Your task to perform on an android device: Go to network settings Image 0: 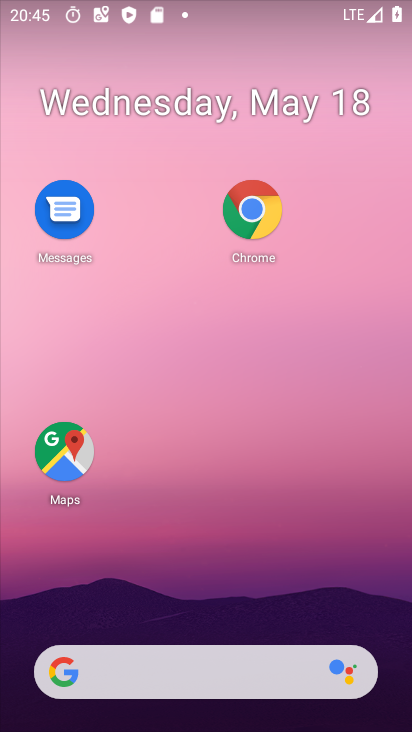
Step 0: drag from (238, 10) to (243, 444)
Your task to perform on an android device: Go to network settings Image 1: 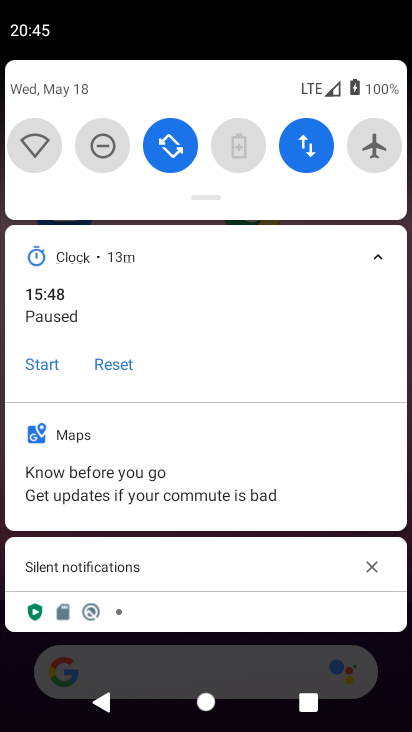
Step 1: click (308, 148)
Your task to perform on an android device: Go to network settings Image 2: 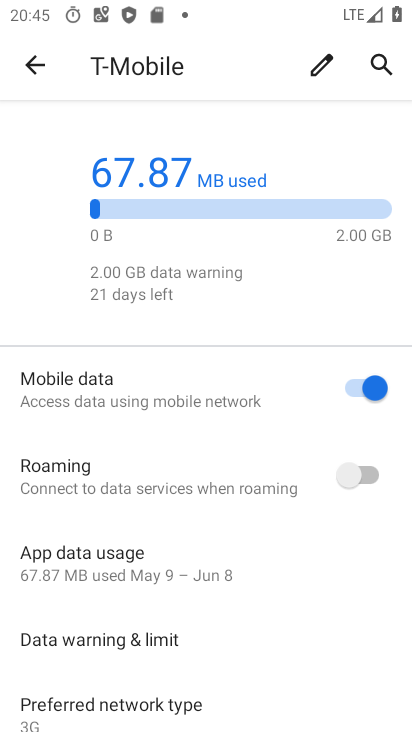
Step 2: task complete